Your task to perform on an android device: open app "Messages" (install if not already installed) Image 0: 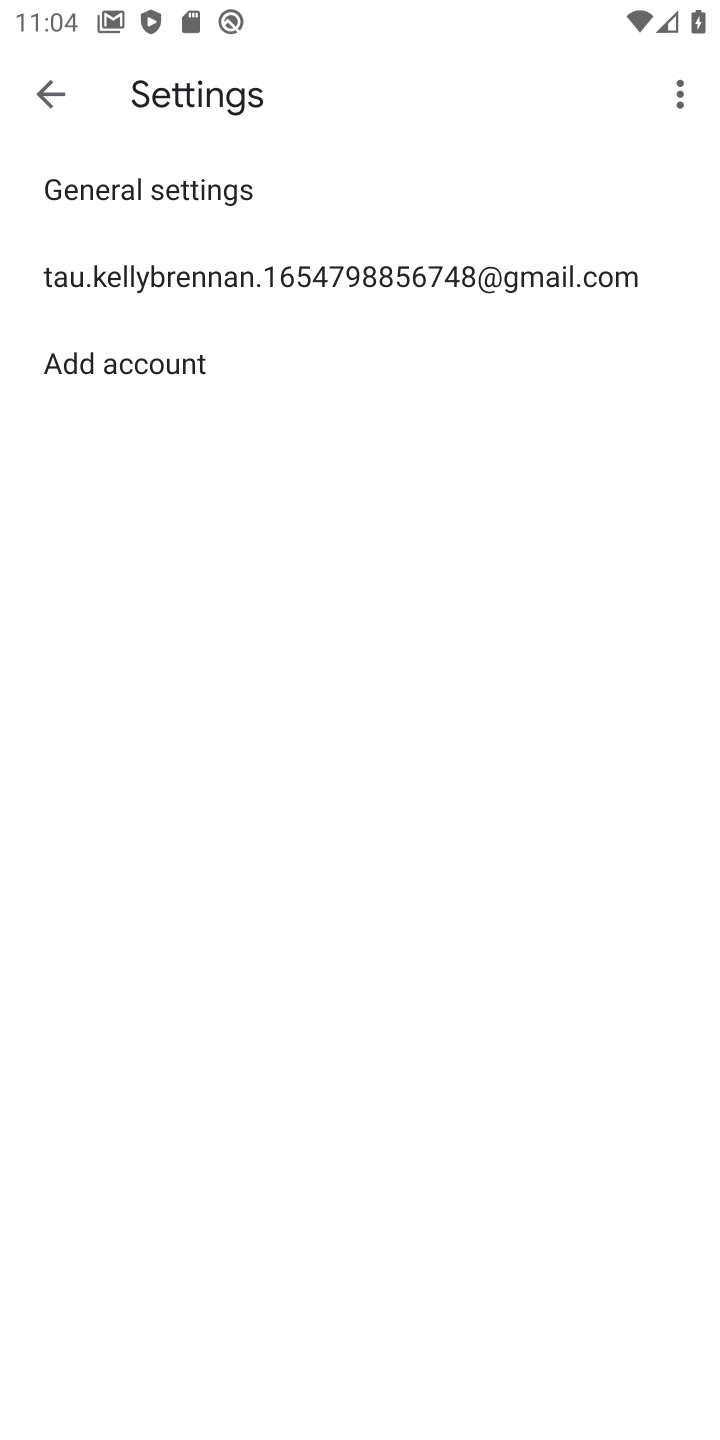
Step 0: press home button
Your task to perform on an android device: open app "Messages" (install if not already installed) Image 1: 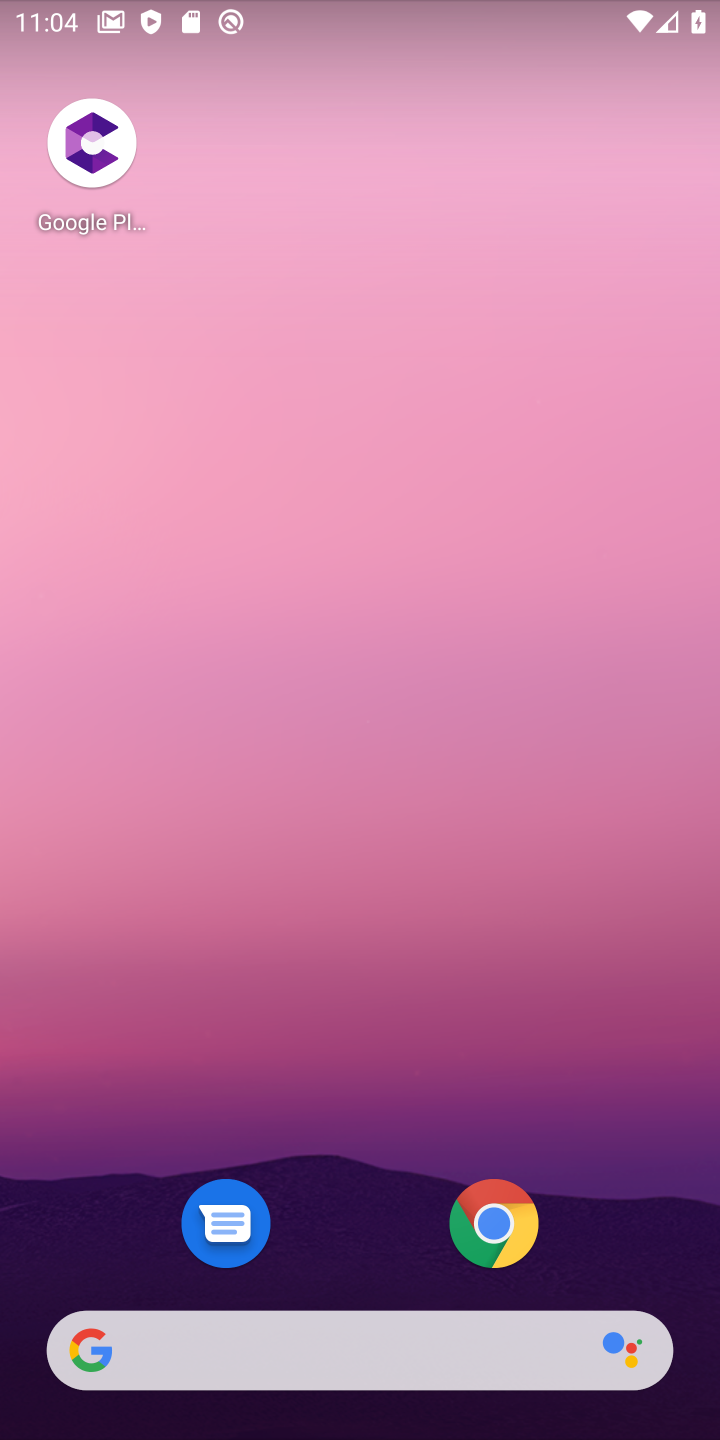
Step 1: drag from (365, 1253) to (311, 104)
Your task to perform on an android device: open app "Messages" (install if not already installed) Image 2: 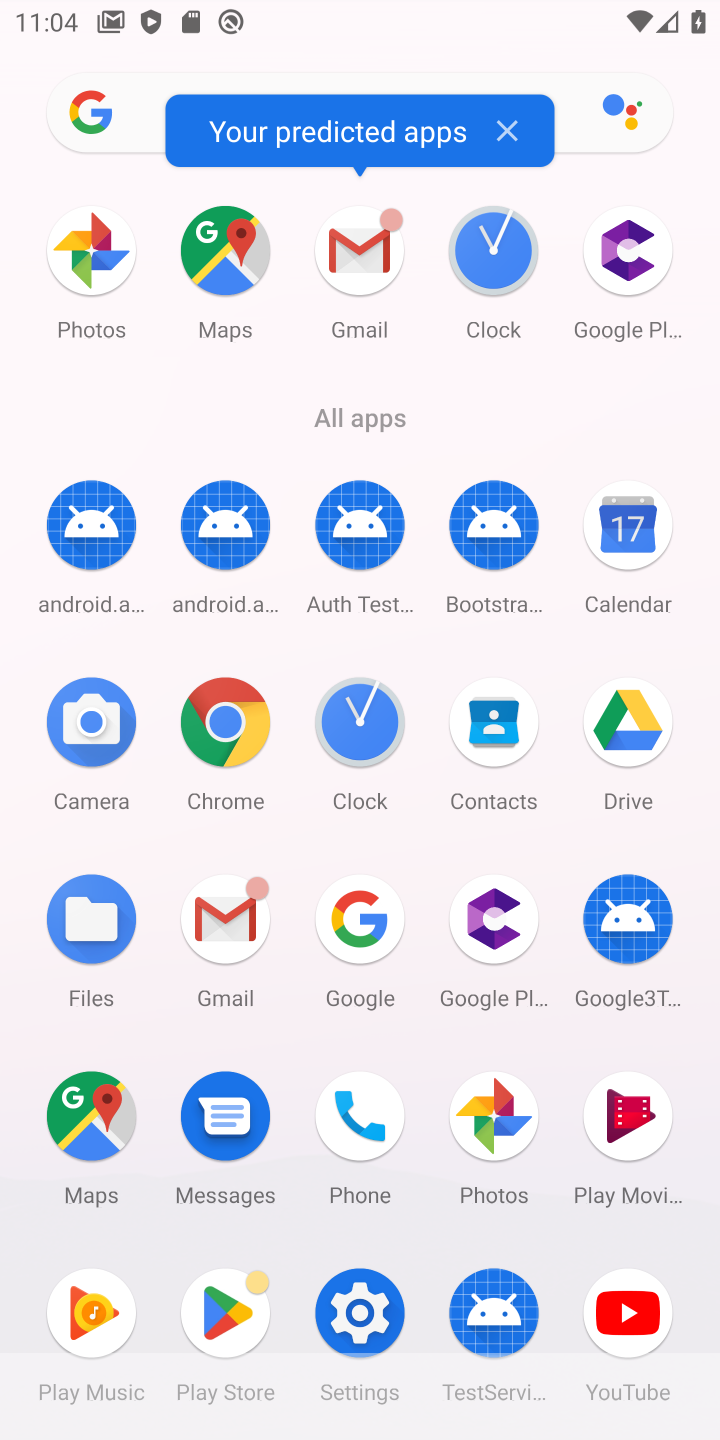
Step 2: click (228, 1125)
Your task to perform on an android device: open app "Messages" (install if not already installed) Image 3: 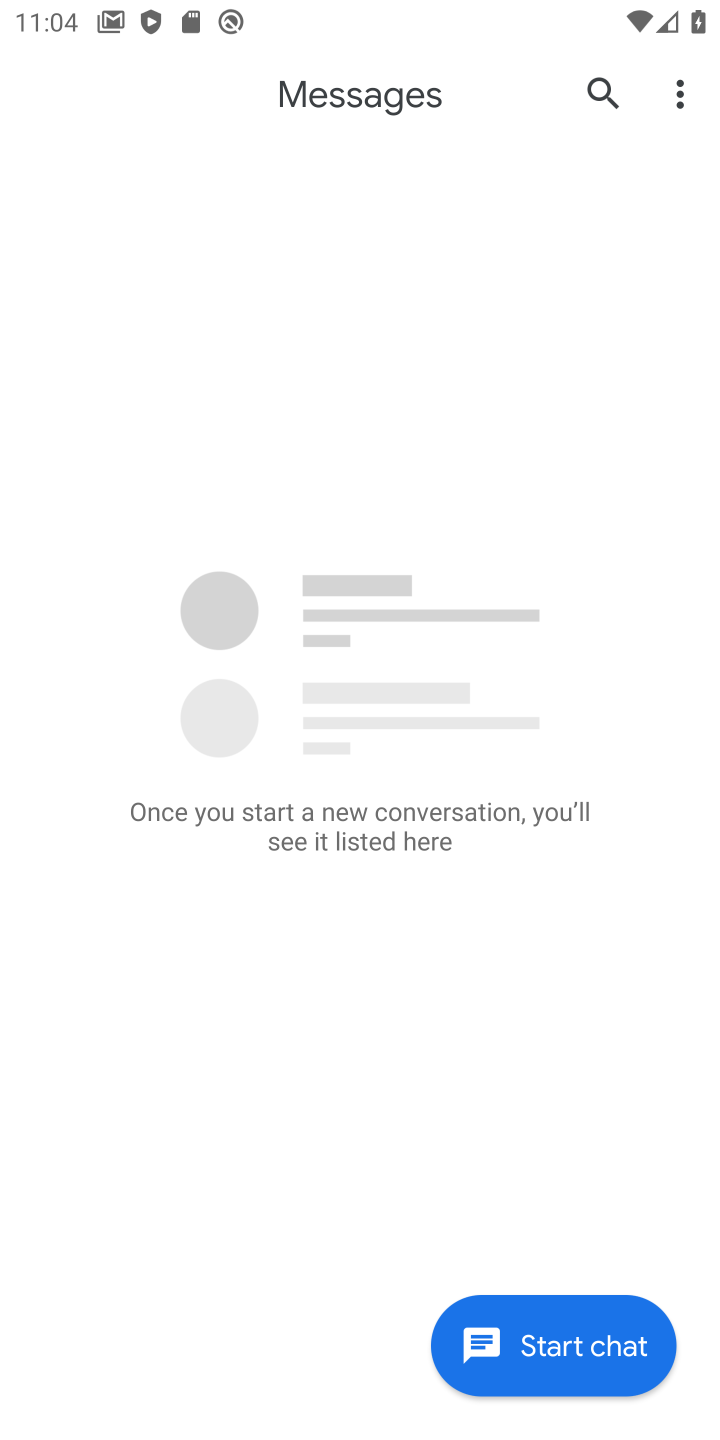
Step 3: task complete